Your task to perform on an android device: open app "Firefox Browser" (install if not already installed) Image 0: 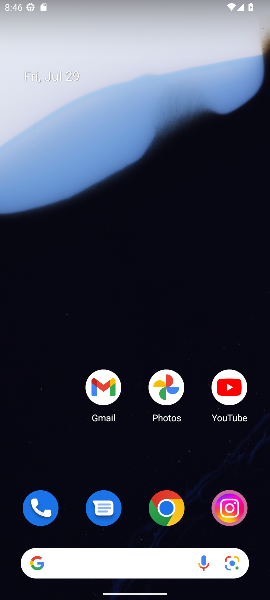
Step 0: drag from (169, 465) to (169, 39)
Your task to perform on an android device: open app "Firefox Browser" (install if not already installed) Image 1: 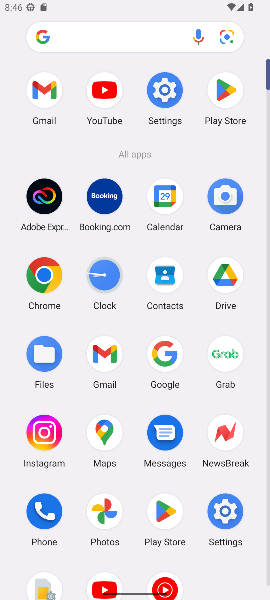
Step 1: click (219, 82)
Your task to perform on an android device: open app "Firefox Browser" (install if not already installed) Image 2: 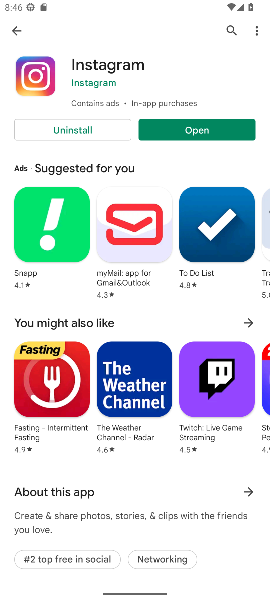
Step 2: click (228, 32)
Your task to perform on an android device: open app "Firefox Browser" (install if not already installed) Image 3: 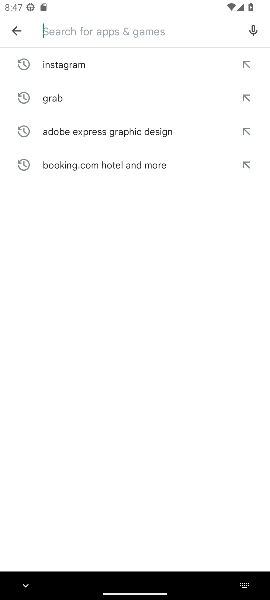
Step 3: type "Firefox browser"
Your task to perform on an android device: open app "Firefox Browser" (install if not already installed) Image 4: 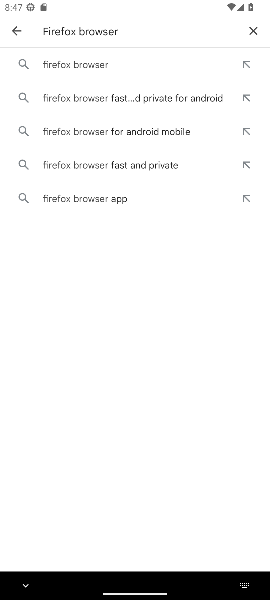
Step 4: click (101, 71)
Your task to perform on an android device: open app "Firefox Browser" (install if not already installed) Image 5: 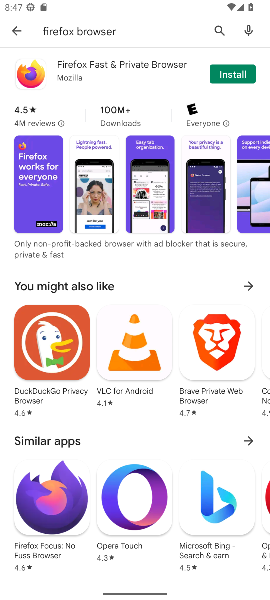
Step 5: click (105, 72)
Your task to perform on an android device: open app "Firefox Browser" (install if not already installed) Image 6: 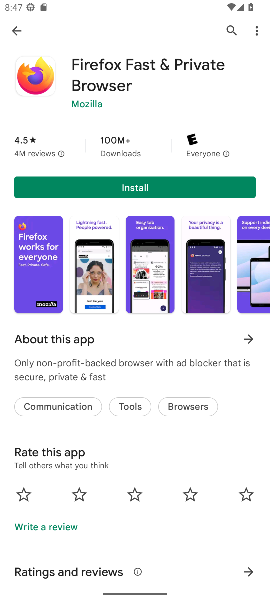
Step 6: click (114, 188)
Your task to perform on an android device: open app "Firefox Browser" (install if not already installed) Image 7: 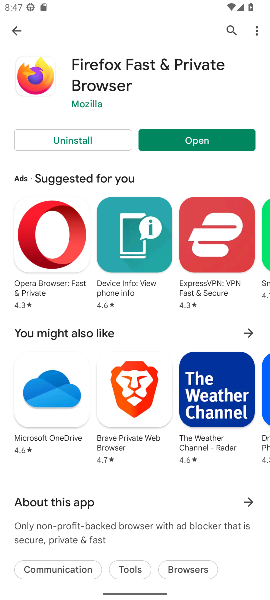
Step 7: click (220, 143)
Your task to perform on an android device: open app "Firefox Browser" (install if not already installed) Image 8: 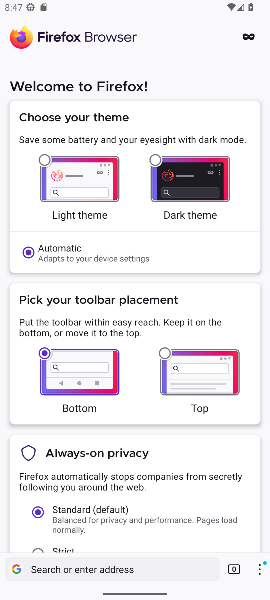
Step 8: task complete